Your task to perform on an android device: Look up the best rated power drills on Lowes.com Image 0: 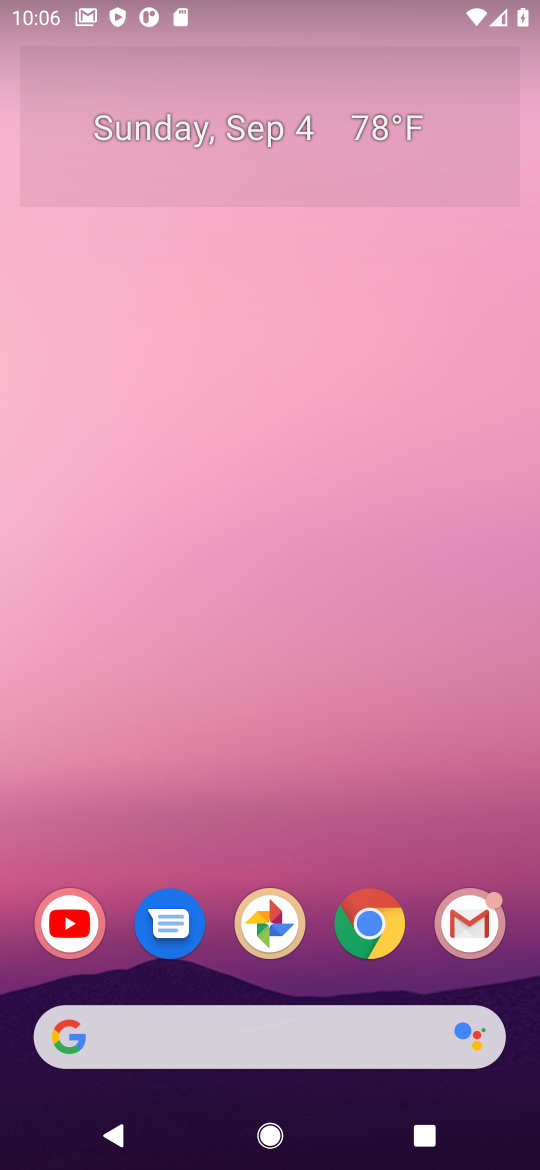
Step 0: click (134, 1014)
Your task to perform on an android device: Look up the best rated power drills on Lowes.com Image 1: 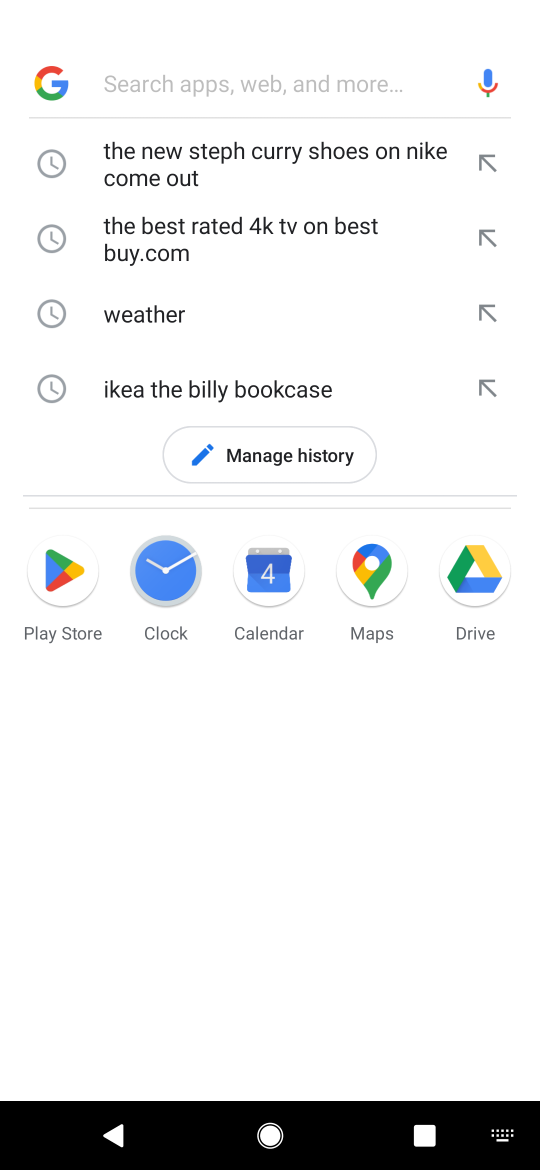
Step 1: type "the best rated power drills on Lowes.com"
Your task to perform on an android device: Look up the best rated power drills on Lowes.com Image 2: 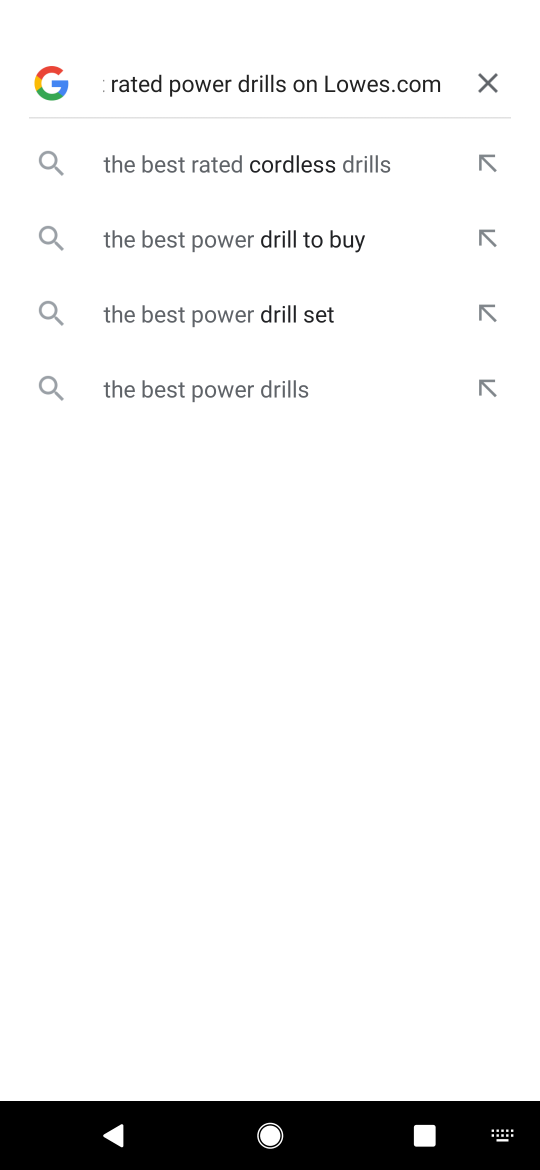
Step 2: click (444, 79)
Your task to perform on an android device: Look up the best rated power drills on Lowes.com Image 3: 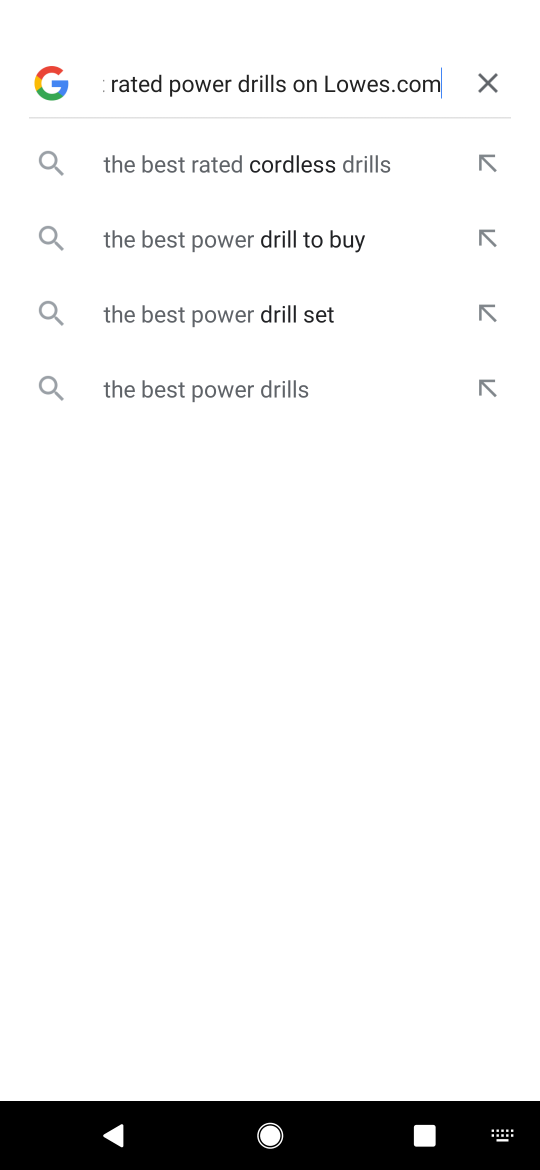
Step 3: task complete